Your task to perform on an android device: Open notification settings Image 0: 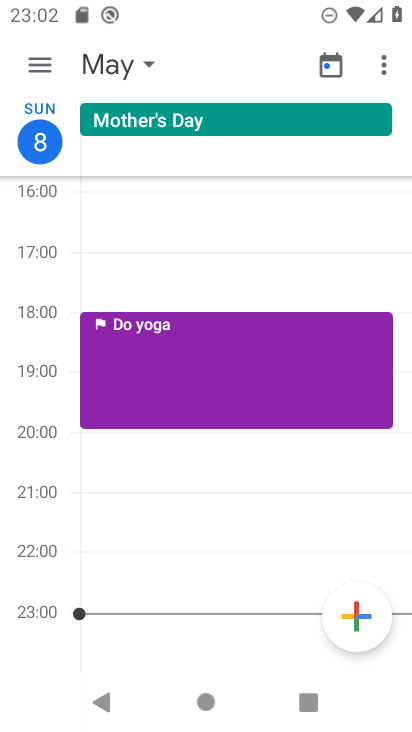
Step 0: press home button
Your task to perform on an android device: Open notification settings Image 1: 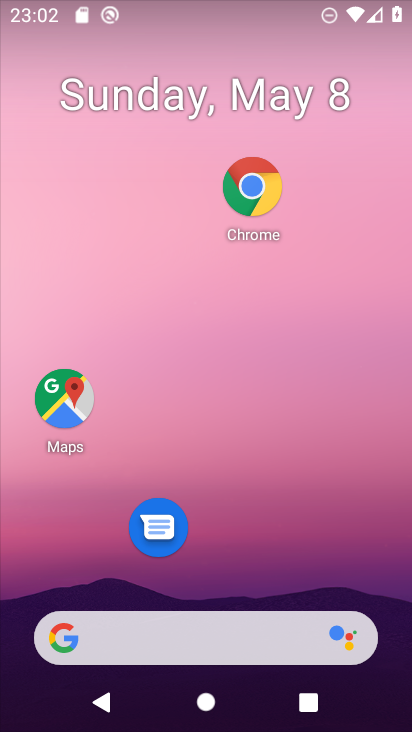
Step 1: drag from (316, 509) to (377, 245)
Your task to perform on an android device: Open notification settings Image 2: 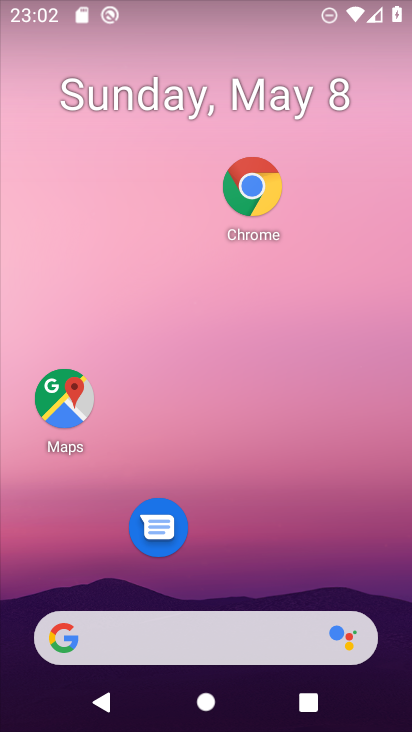
Step 2: drag from (269, 566) to (297, 337)
Your task to perform on an android device: Open notification settings Image 3: 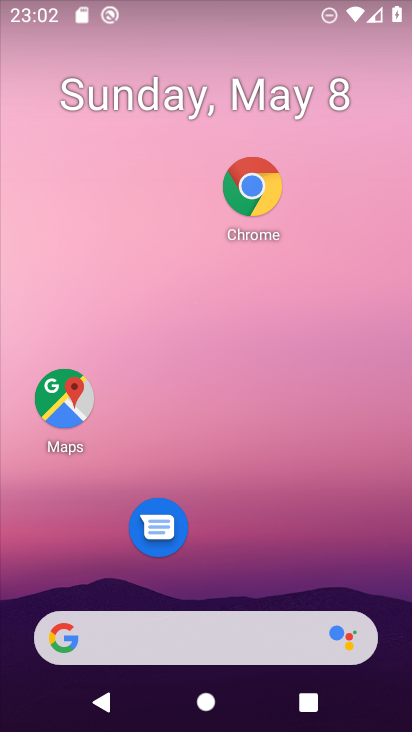
Step 3: drag from (255, 515) to (320, 244)
Your task to perform on an android device: Open notification settings Image 4: 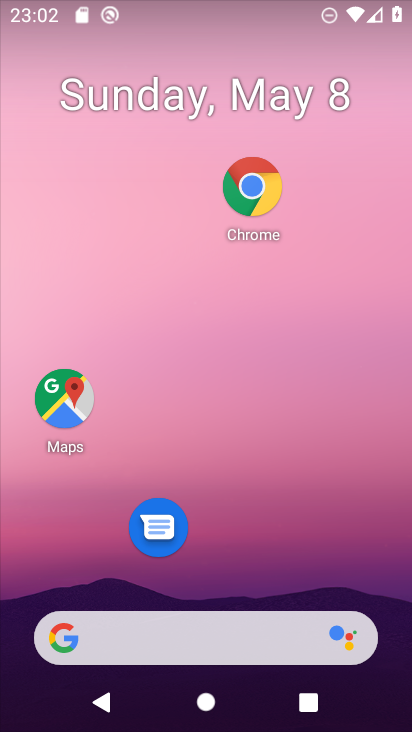
Step 4: drag from (263, 540) to (322, 165)
Your task to perform on an android device: Open notification settings Image 5: 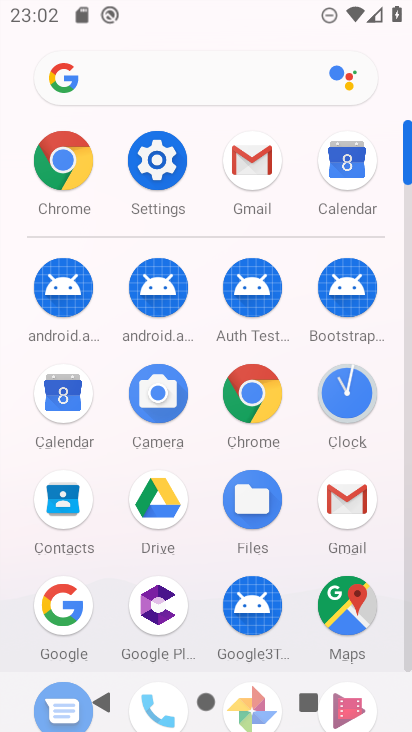
Step 5: click (161, 138)
Your task to perform on an android device: Open notification settings Image 6: 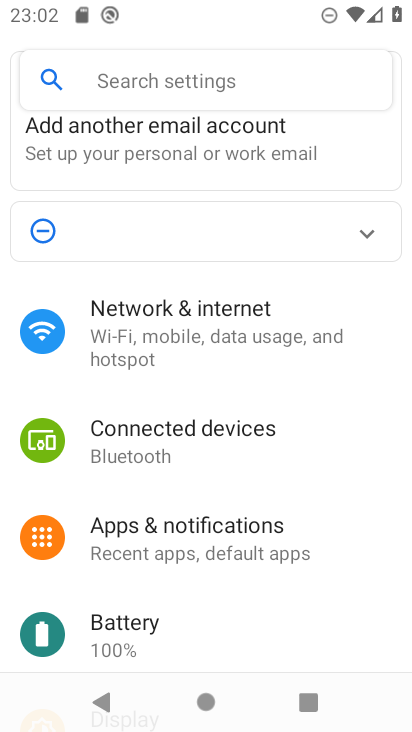
Step 6: click (188, 540)
Your task to perform on an android device: Open notification settings Image 7: 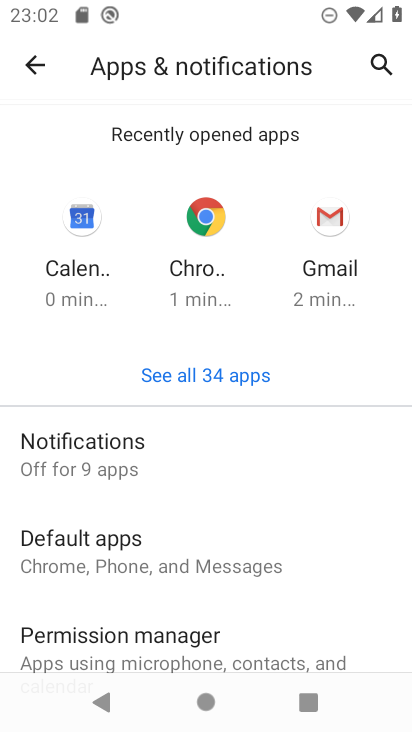
Step 7: task complete